Your task to perform on an android device: Open settings on Google Maps Image 0: 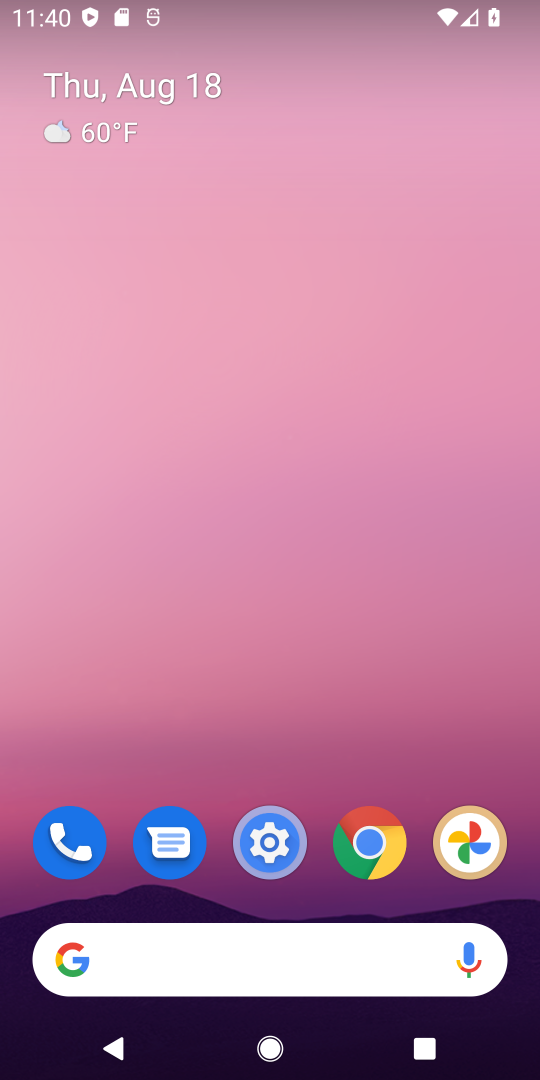
Step 0: drag from (321, 904) to (272, 187)
Your task to perform on an android device: Open settings on Google Maps Image 1: 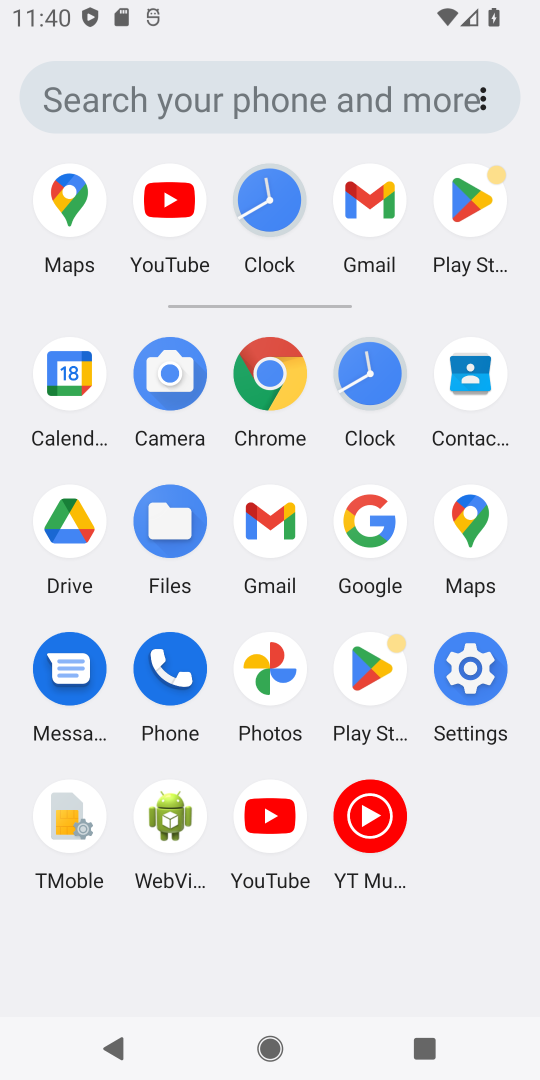
Step 1: click (462, 498)
Your task to perform on an android device: Open settings on Google Maps Image 2: 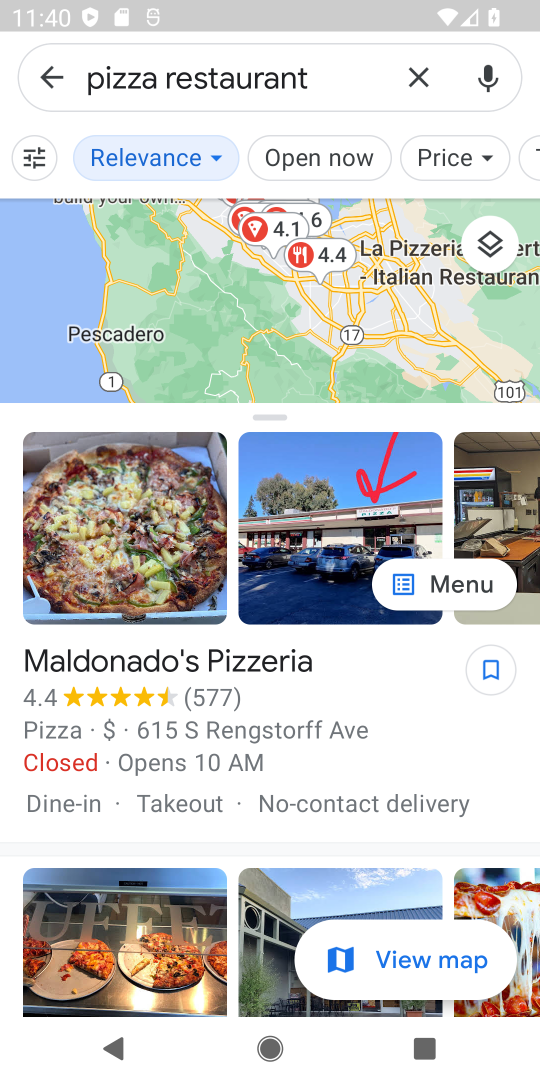
Step 2: click (36, 67)
Your task to perform on an android device: Open settings on Google Maps Image 3: 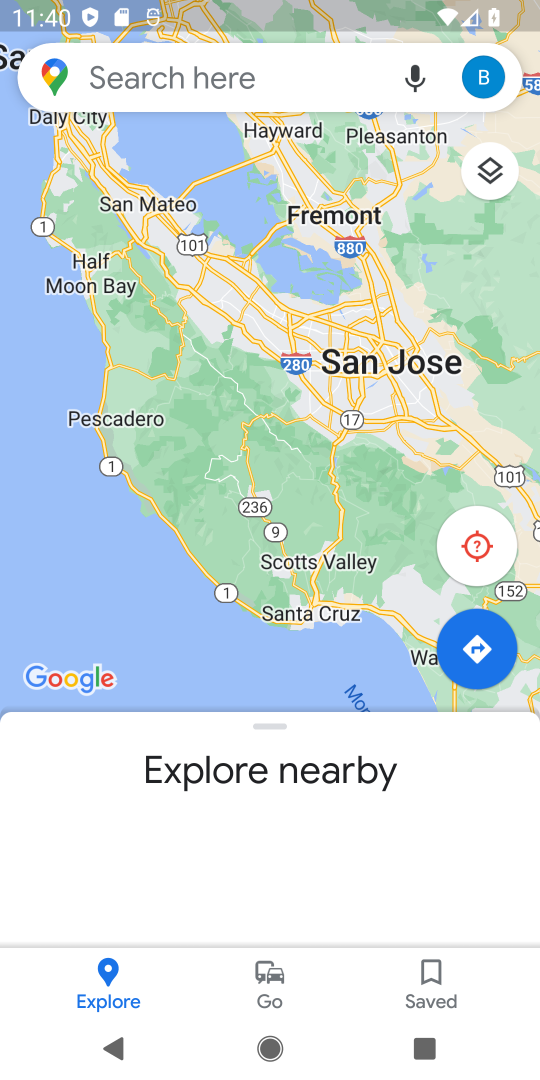
Step 3: click (490, 80)
Your task to perform on an android device: Open settings on Google Maps Image 4: 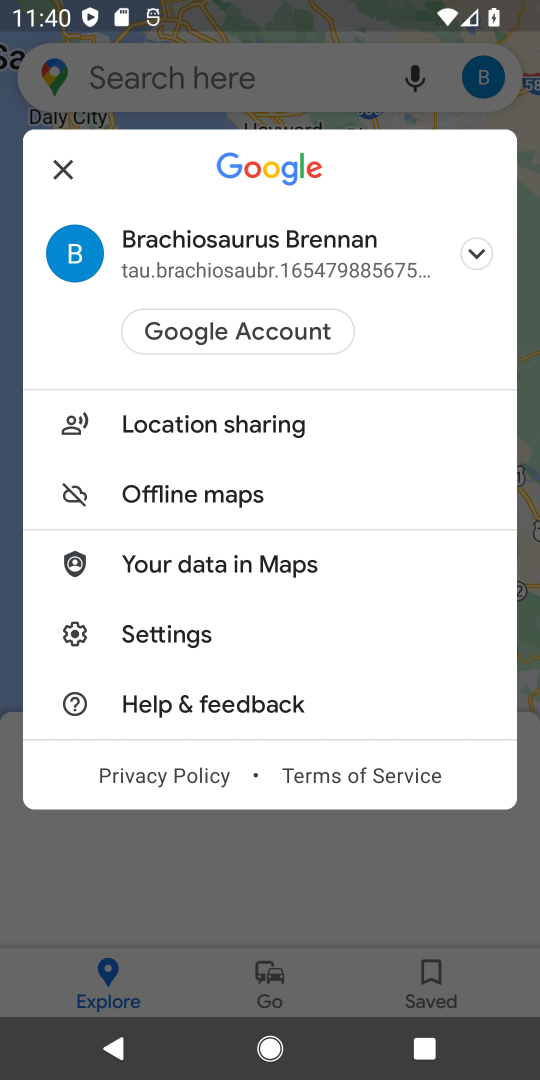
Step 4: click (160, 634)
Your task to perform on an android device: Open settings on Google Maps Image 5: 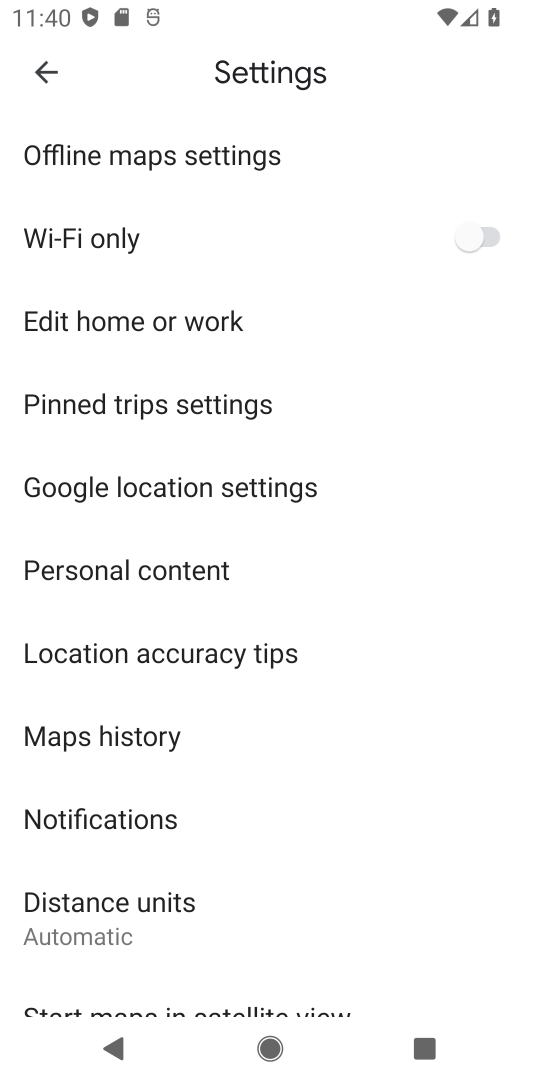
Step 5: task complete